Your task to perform on an android device: remove spam from my inbox in the gmail app Image 0: 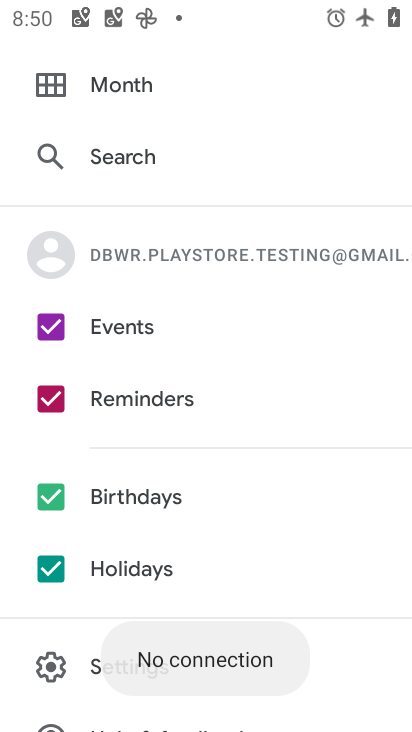
Step 0: press home button
Your task to perform on an android device: remove spam from my inbox in the gmail app Image 1: 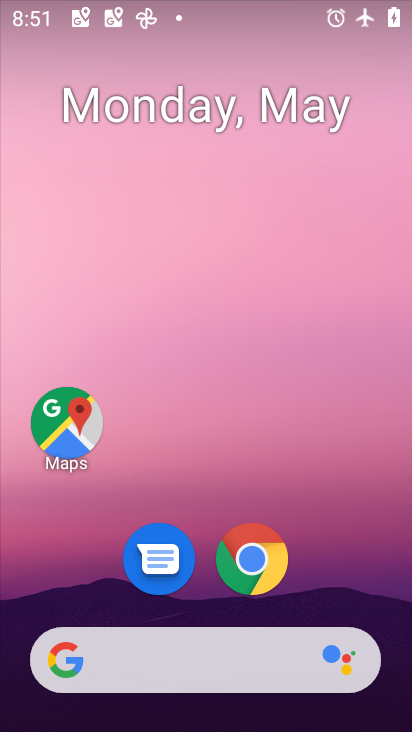
Step 1: drag from (342, 583) to (337, 113)
Your task to perform on an android device: remove spam from my inbox in the gmail app Image 2: 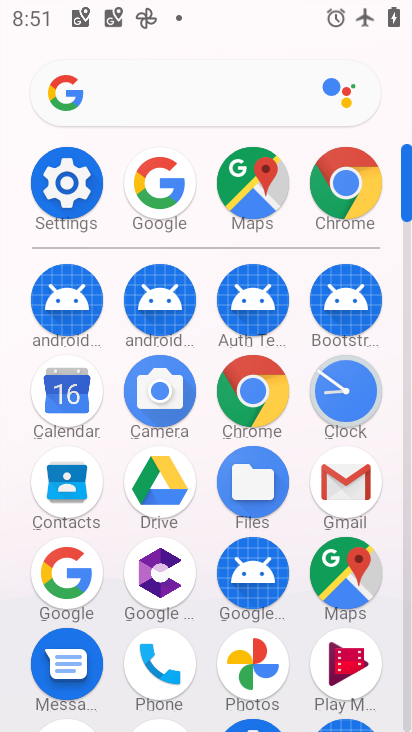
Step 2: click (353, 480)
Your task to perform on an android device: remove spam from my inbox in the gmail app Image 3: 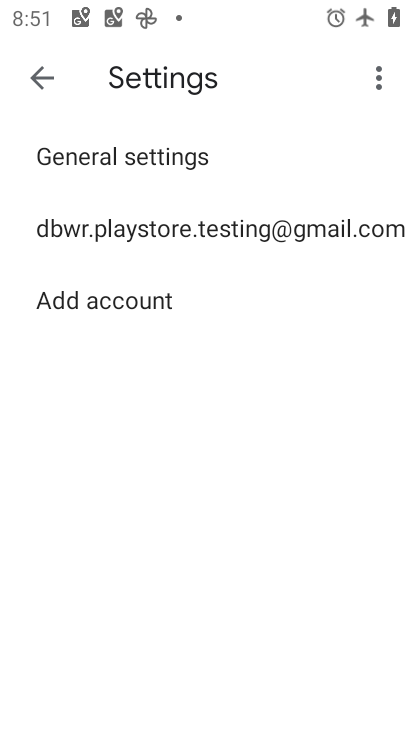
Step 3: click (159, 245)
Your task to perform on an android device: remove spam from my inbox in the gmail app Image 4: 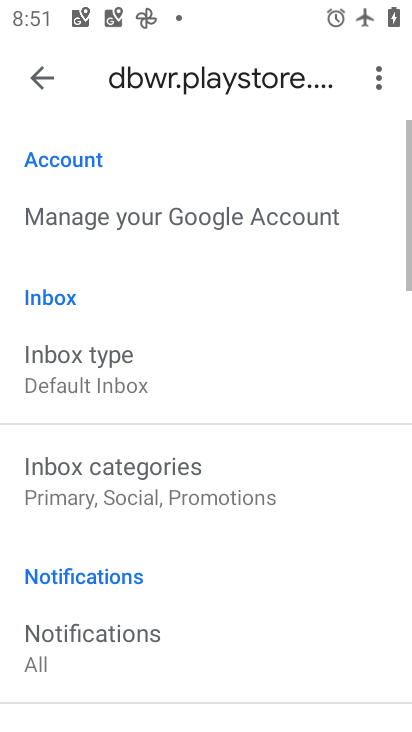
Step 4: press back button
Your task to perform on an android device: remove spam from my inbox in the gmail app Image 5: 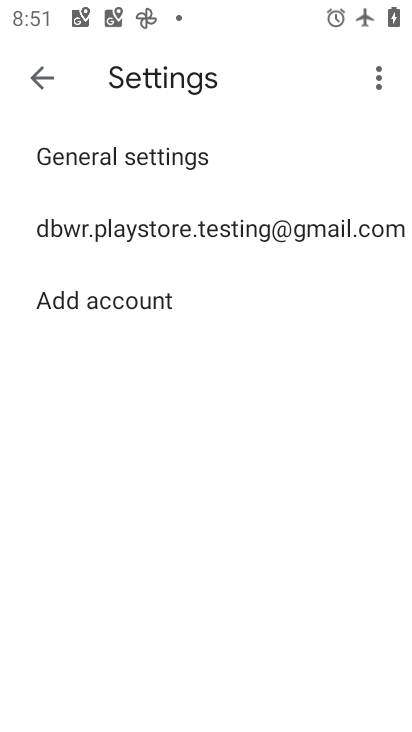
Step 5: press back button
Your task to perform on an android device: remove spam from my inbox in the gmail app Image 6: 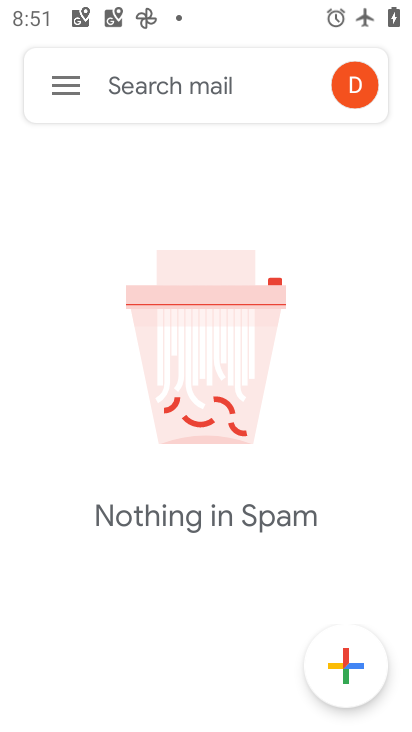
Step 6: click (62, 83)
Your task to perform on an android device: remove spam from my inbox in the gmail app Image 7: 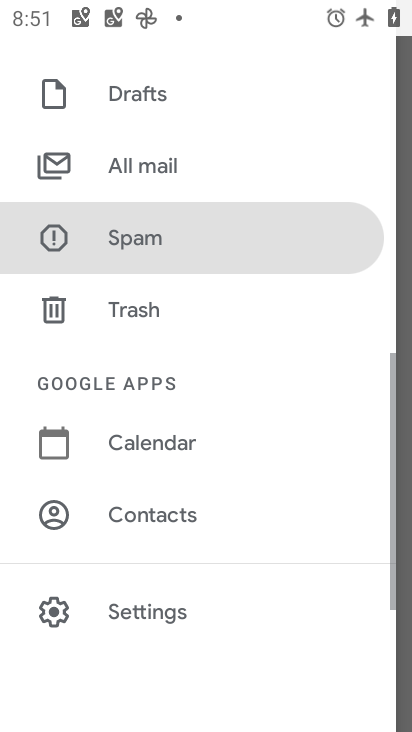
Step 7: drag from (146, 144) to (245, 673)
Your task to perform on an android device: remove spam from my inbox in the gmail app Image 8: 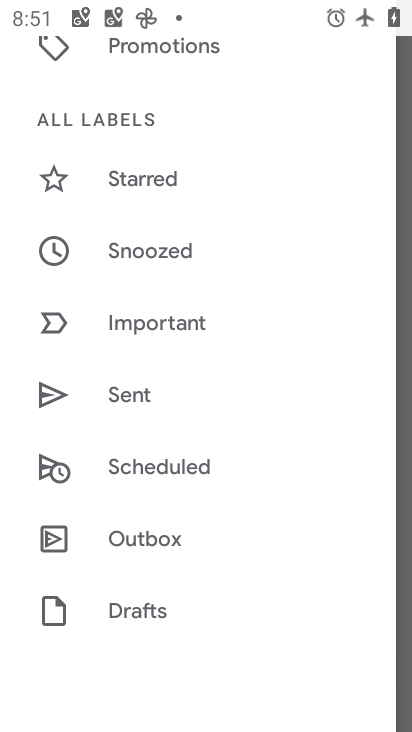
Step 8: drag from (224, 94) to (239, 624)
Your task to perform on an android device: remove spam from my inbox in the gmail app Image 9: 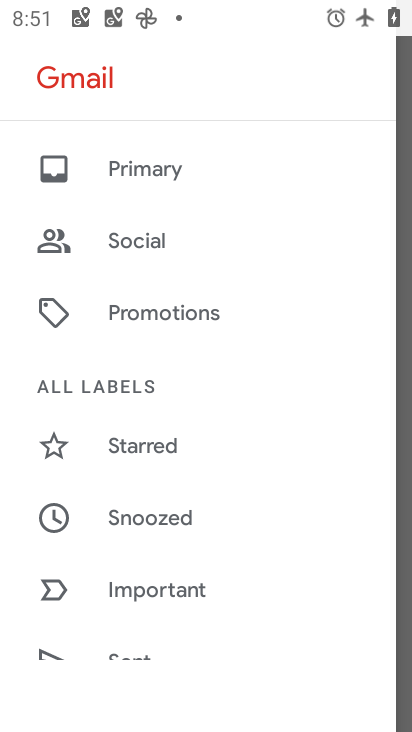
Step 9: click (226, 160)
Your task to perform on an android device: remove spam from my inbox in the gmail app Image 10: 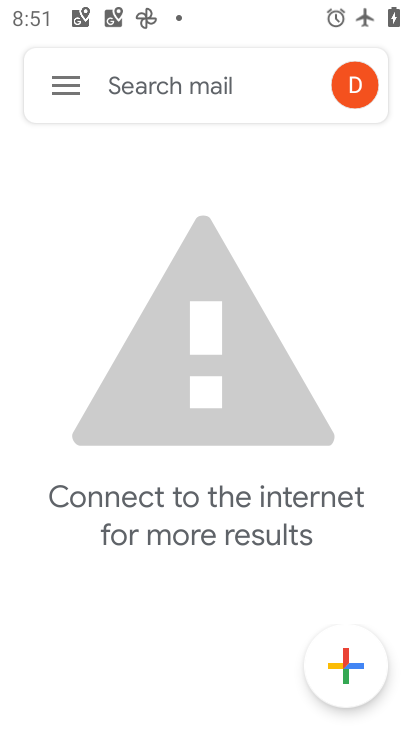
Step 10: task complete